Your task to perform on an android device: check the backup settings in the google photos Image 0: 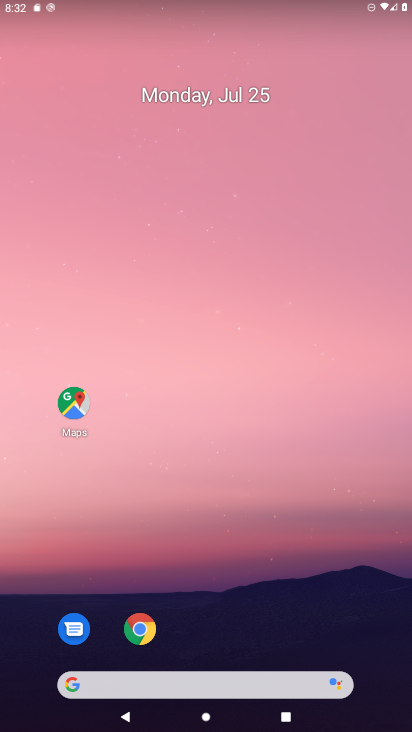
Step 0: drag from (216, 651) to (244, 26)
Your task to perform on an android device: check the backup settings in the google photos Image 1: 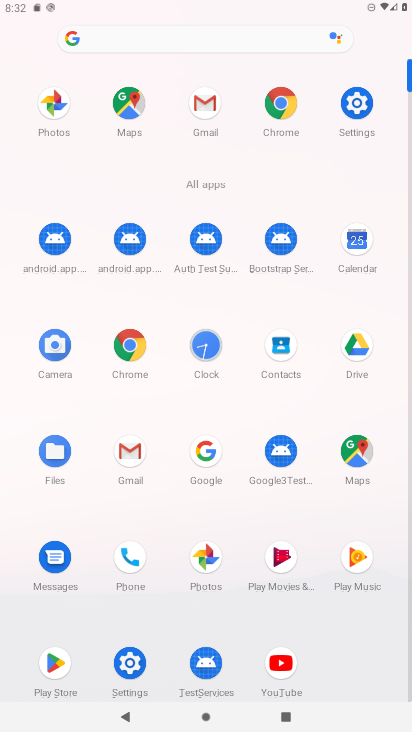
Step 1: click (49, 114)
Your task to perform on an android device: check the backup settings in the google photos Image 2: 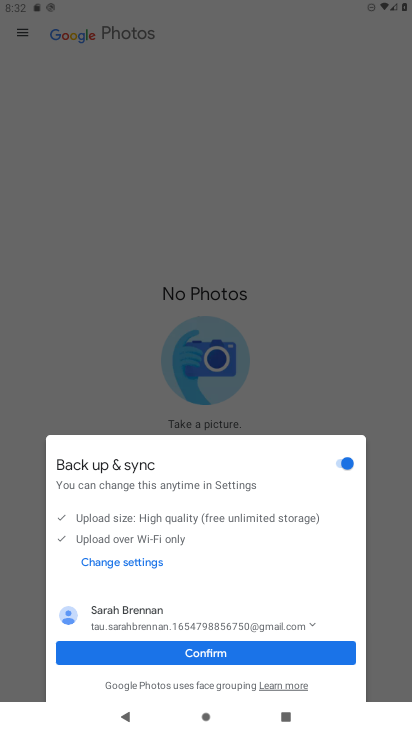
Step 2: click (185, 648)
Your task to perform on an android device: check the backup settings in the google photos Image 3: 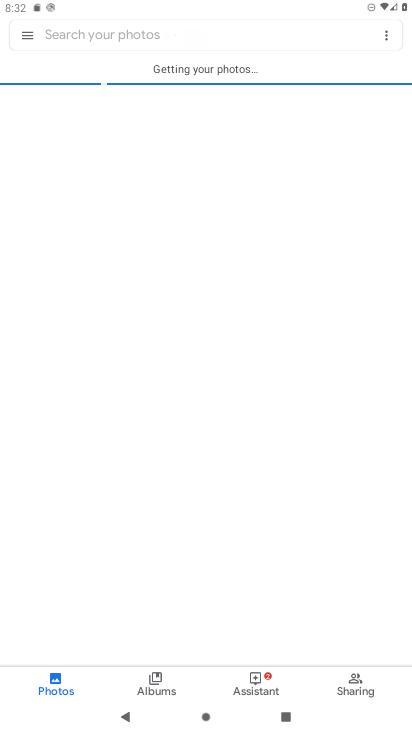
Step 3: click (28, 35)
Your task to perform on an android device: check the backup settings in the google photos Image 4: 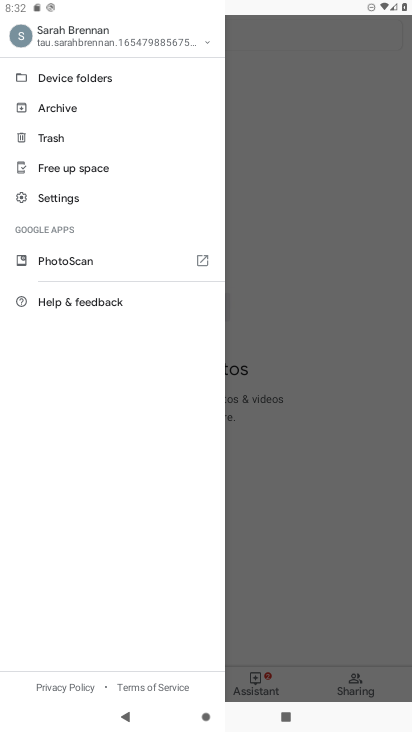
Step 4: click (67, 204)
Your task to perform on an android device: check the backup settings in the google photos Image 5: 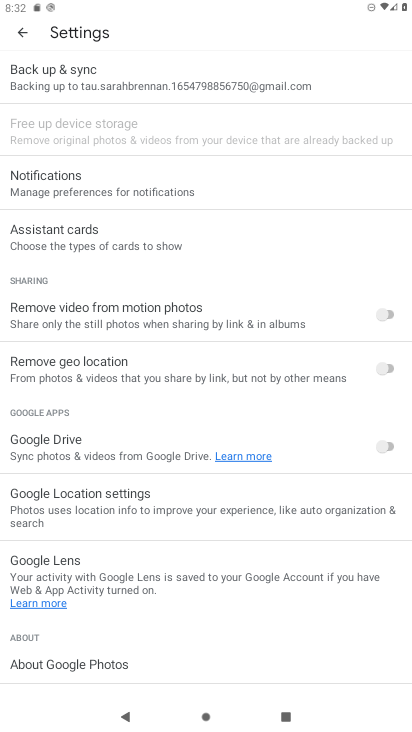
Step 5: click (62, 89)
Your task to perform on an android device: check the backup settings in the google photos Image 6: 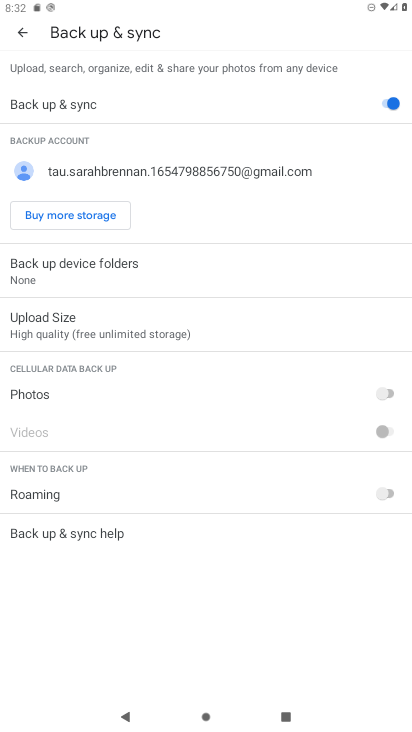
Step 6: task complete